Your task to perform on an android device: move an email to a new category in the gmail app Image 0: 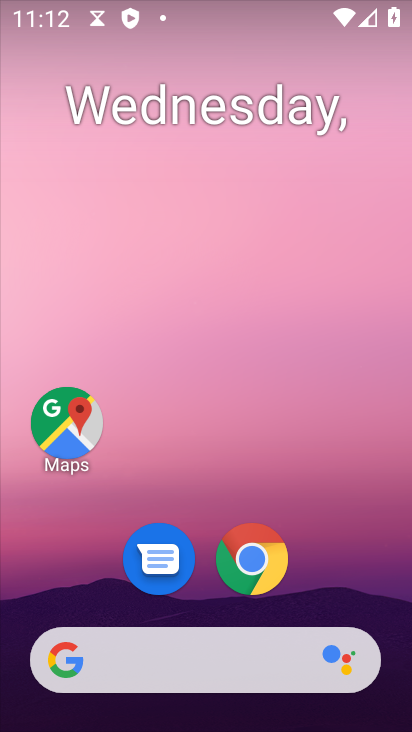
Step 0: press home button
Your task to perform on an android device: move an email to a new category in the gmail app Image 1: 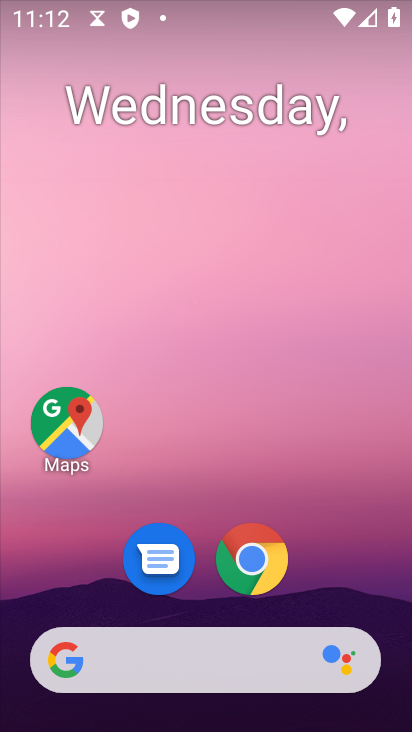
Step 1: drag from (374, 581) to (318, 171)
Your task to perform on an android device: move an email to a new category in the gmail app Image 2: 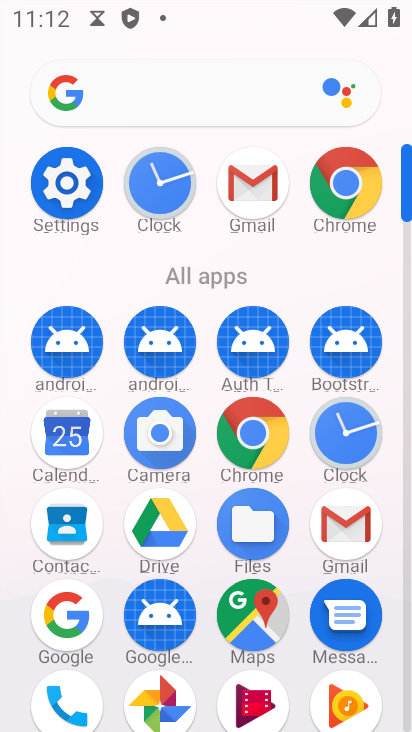
Step 2: click (259, 196)
Your task to perform on an android device: move an email to a new category in the gmail app Image 3: 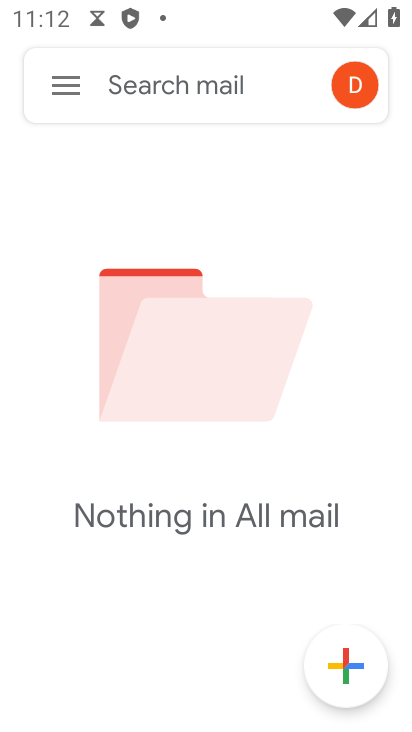
Step 3: click (58, 98)
Your task to perform on an android device: move an email to a new category in the gmail app Image 4: 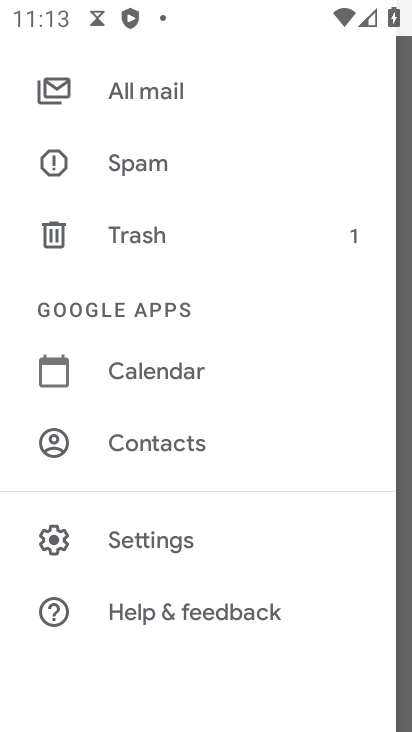
Step 4: click (123, 76)
Your task to perform on an android device: move an email to a new category in the gmail app Image 5: 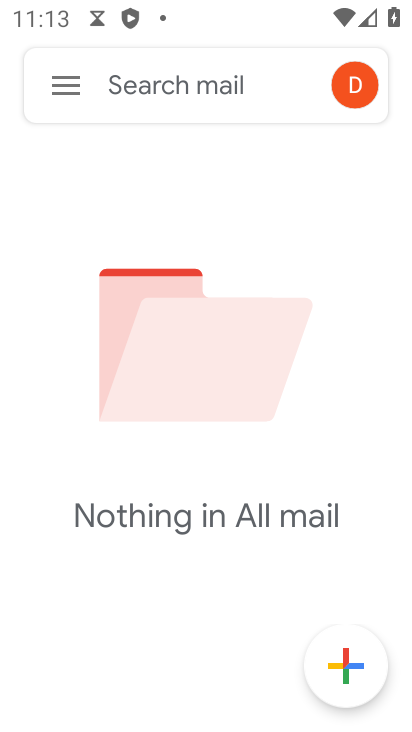
Step 5: task complete